Your task to perform on an android device: Go to battery settings Image 0: 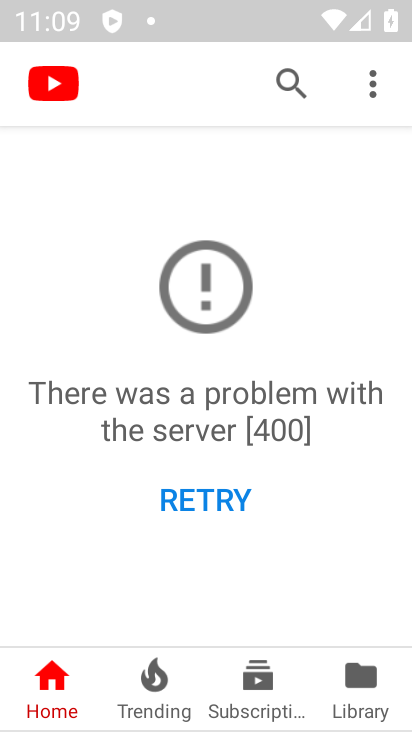
Step 0: press home button
Your task to perform on an android device: Go to battery settings Image 1: 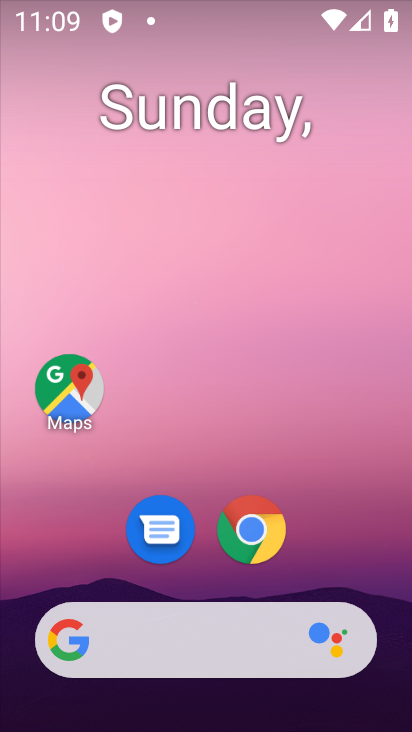
Step 1: drag from (277, 686) to (185, 82)
Your task to perform on an android device: Go to battery settings Image 2: 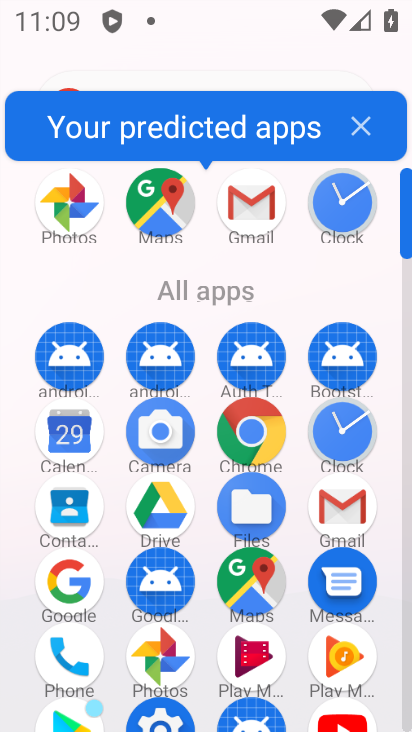
Step 2: click (176, 712)
Your task to perform on an android device: Go to battery settings Image 3: 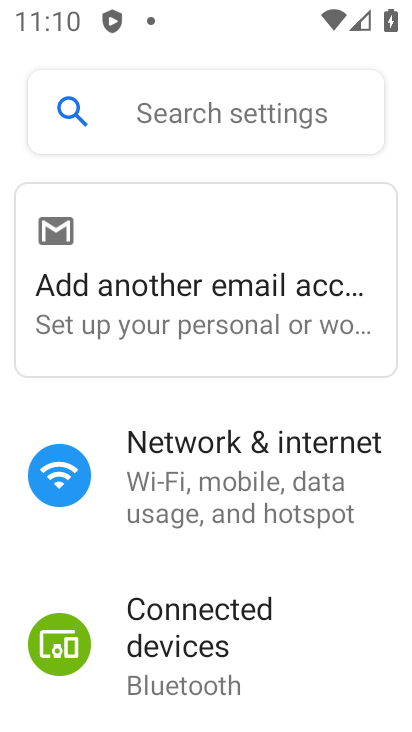
Step 3: drag from (238, 630) to (172, 242)
Your task to perform on an android device: Go to battery settings Image 4: 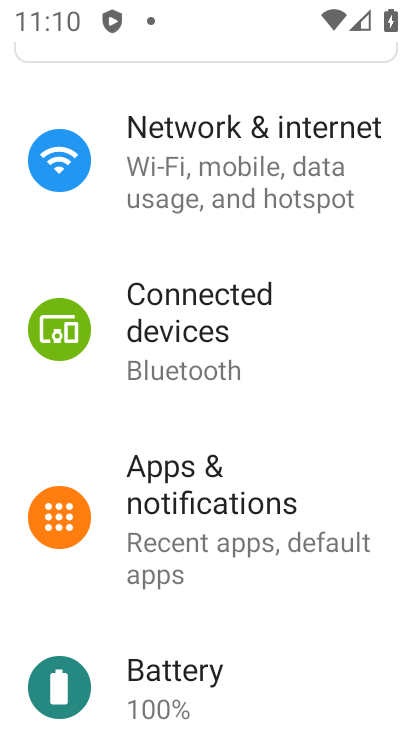
Step 4: click (243, 664)
Your task to perform on an android device: Go to battery settings Image 5: 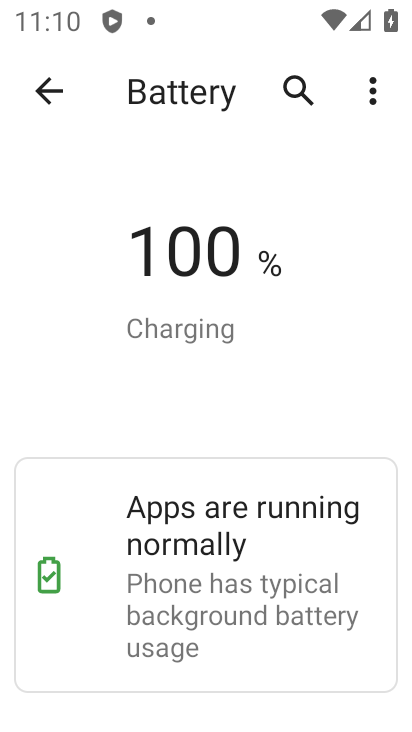
Step 5: task complete